Your task to perform on an android device: turn on javascript in the chrome app Image 0: 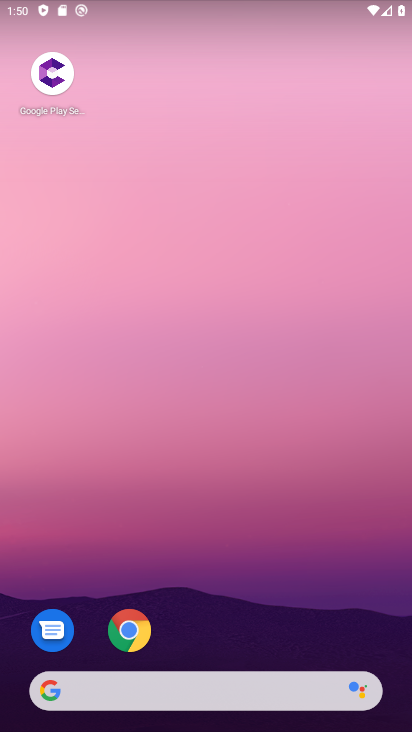
Step 0: drag from (55, 567) to (305, 105)
Your task to perform on an android device: turn on javascript in the chrome app Image 1: 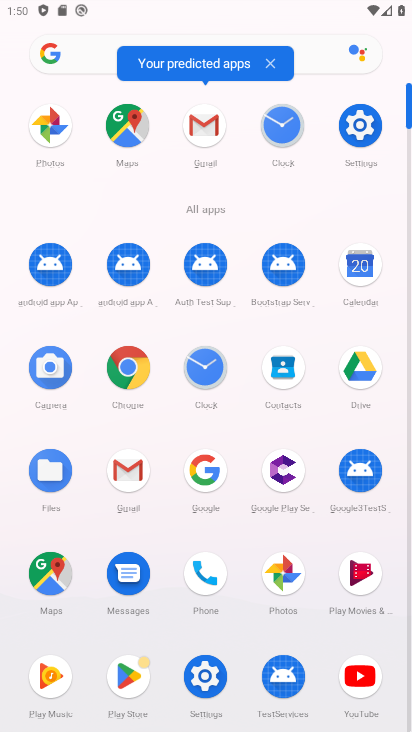
Step 1: click (129, 384)
Your task to perform on an android device: turn on javascript in the chrome app Image 2: 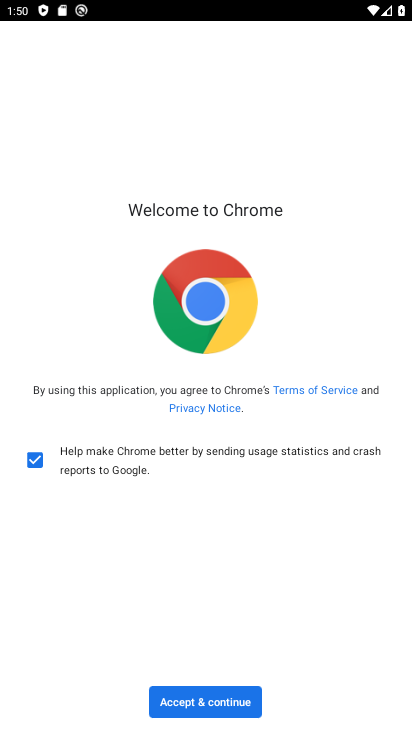
Step 2: click (229, 685)
Your task to perform on an android device: turn on javascript in the chrome app Image 3: 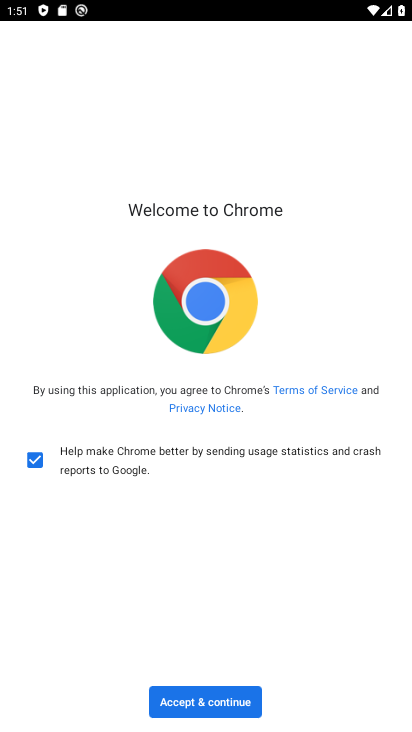
Step 3: click (196, 704)
Your task to perform on an android device: turn on javascript in the chrome app Image 4: 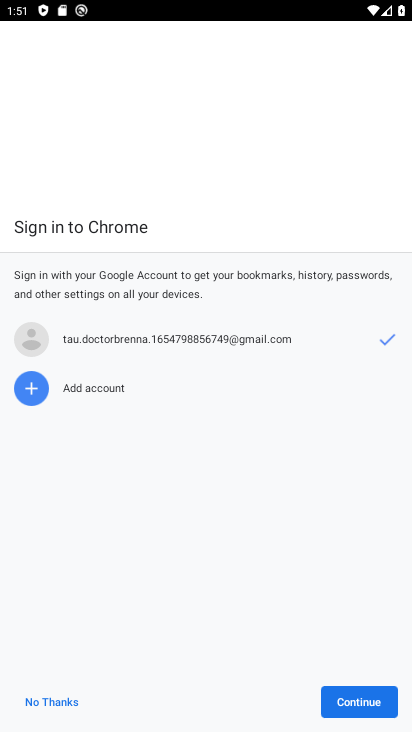
Step 4: click (27, 704)
Your task to perform on an android device: turn on javascript in the chrome app Image 5: 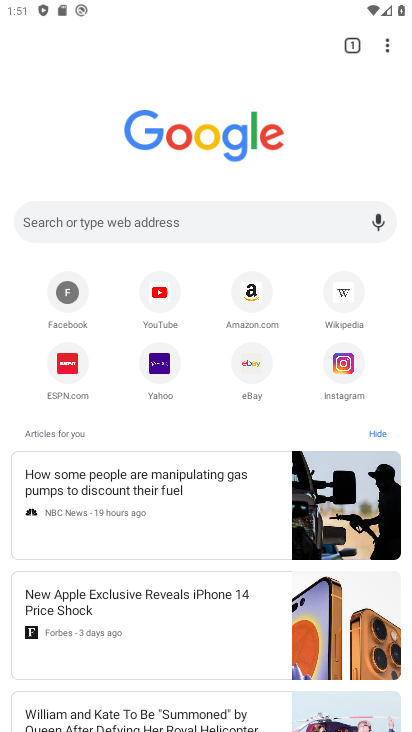
Step 5: click (387, 54)
Your task to perform on an android device: turn on javascript in the chrome app Image 6: 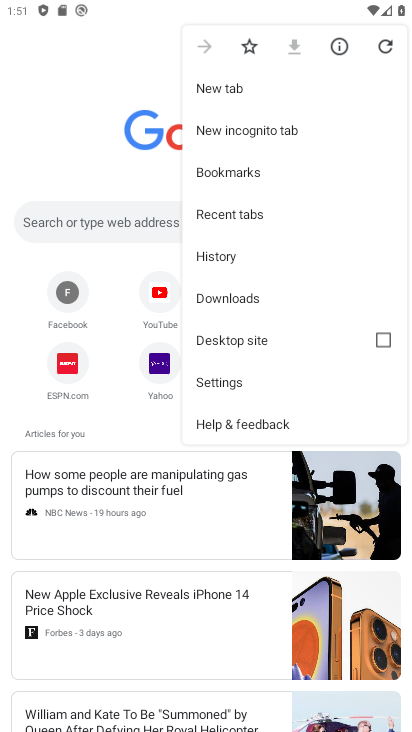
Step 6: click (198, 384)
Your task to perform on an android device: turn on javascript in the chrome app Image 7: 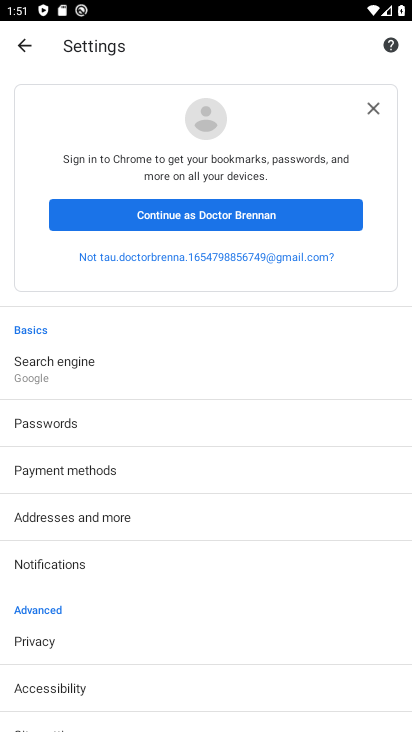
Step 7: drag from (49, 691) to (244, 330)
Your task to perform on an android device: turn on javascript in the chrome app Image 8: 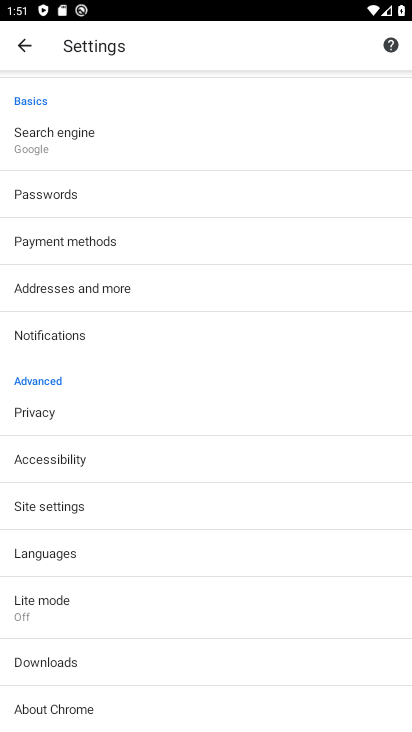
Step 8: click (63, 506)
Your task to perform on an android device: turn on javascript in the chrome app Image 9: 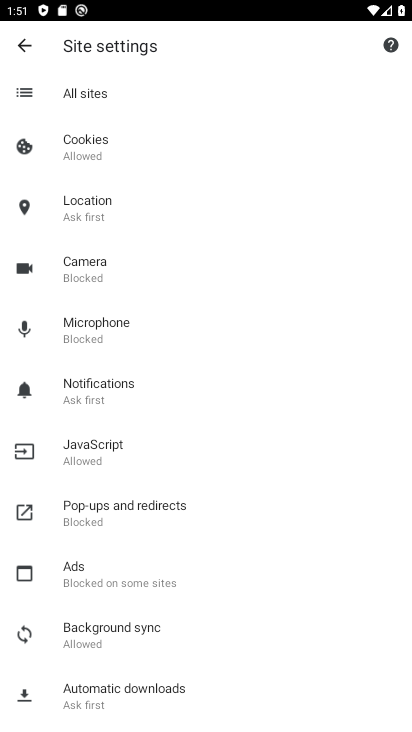
Step 9: click (180, 439)
Your task to perform on an android device: turn on javascript in the chrome app Image 10: 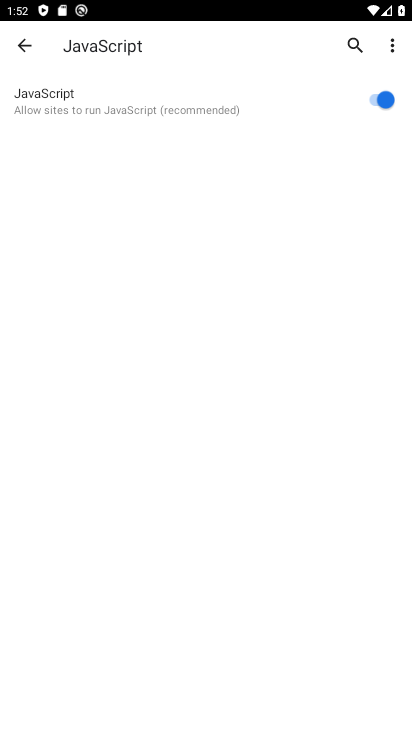
Step 10: task complete